Your task to perform on an android device: Open Reddit.com Image 0: 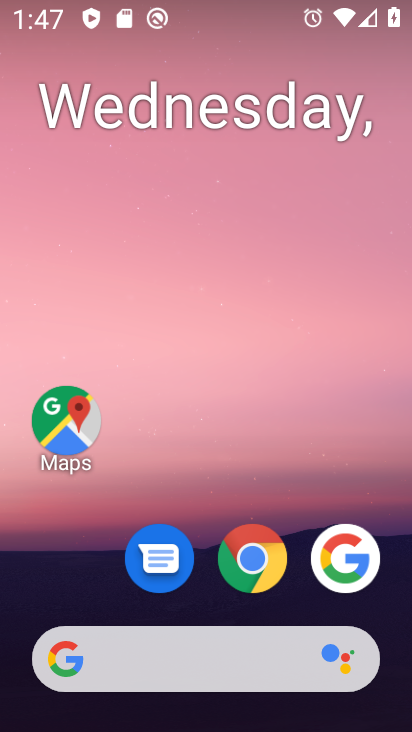
Step 0: click (262, 564)
Your task to perform on an android device: Open Reddit.com Image 1: 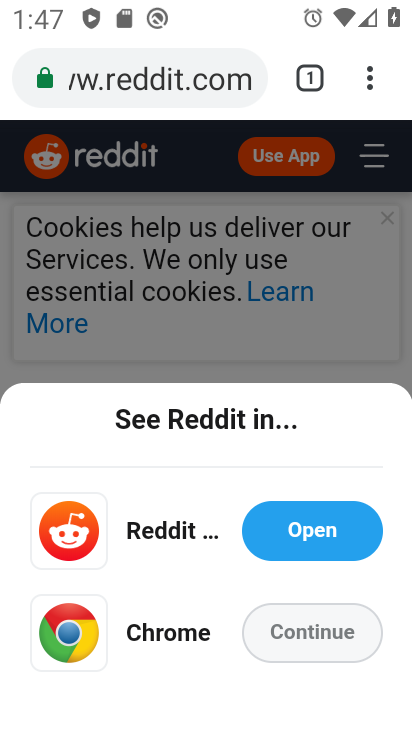
Step 1: task complete